Your task to perform on an android device: Go to battery settings Image 0: 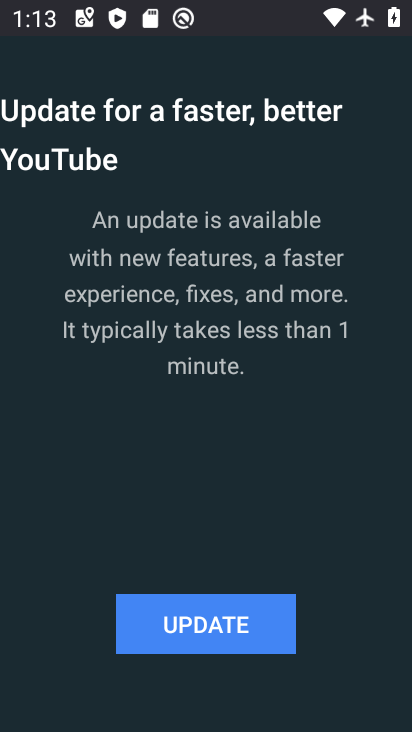
Step 0: press home button
Your task to perform on an android device: Go to battery settings Image 1: 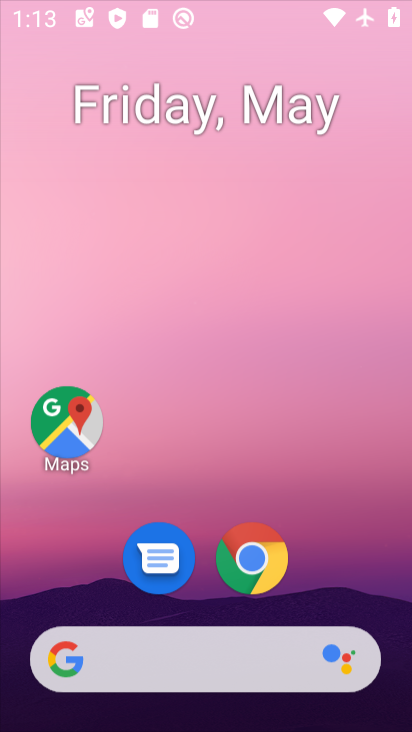
Step 1: drag from (313, 469) to (293, 82)
Your task to perform on an android device: Go to battery settings Image 2: 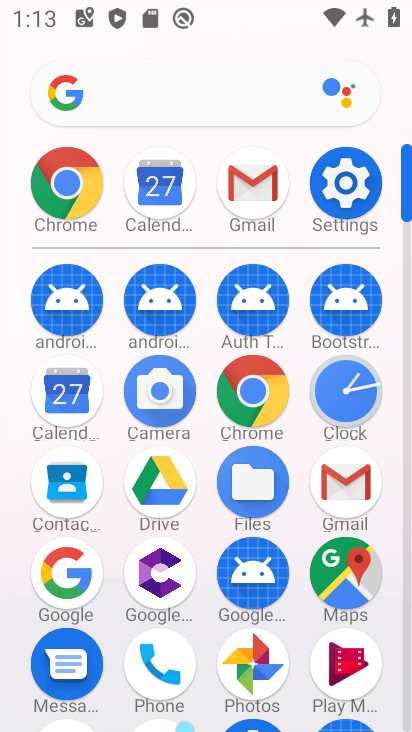
Step 2: click (341, 180)
Your task to perform on an android device: Go to battery settings Image 3: 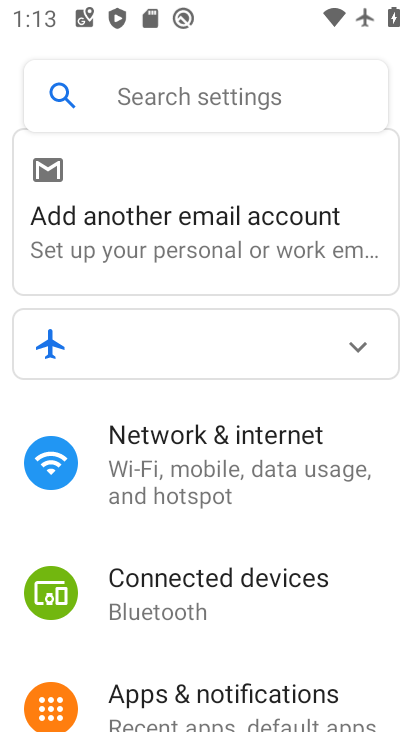
Step 3: drag from (210, 470) to (226, 96)
Your task to perform on an android device: Go to battery settings Image 4: 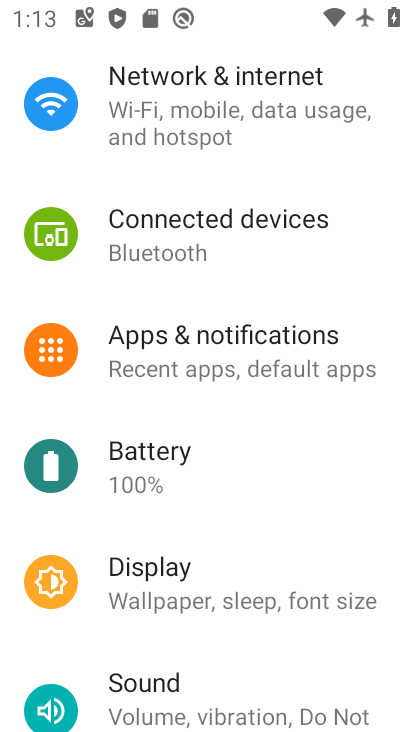
Step 4: click (132, 429)
Your task to perform on an android device: Go to battery settings Image 5: 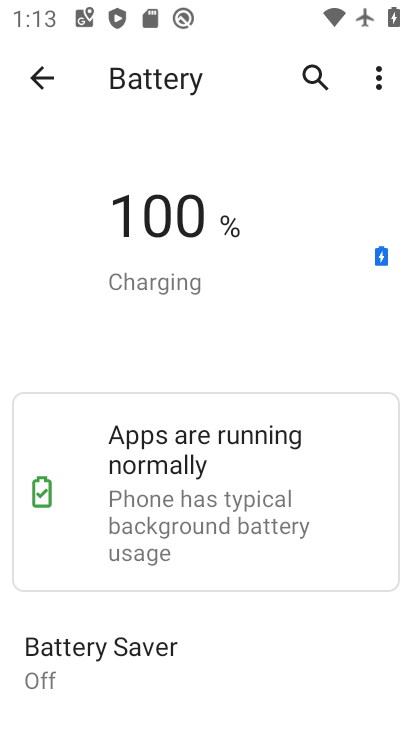
Step 5: task complete